Your task to perform on an android device: refresh tabs in the chrome app Image 0: 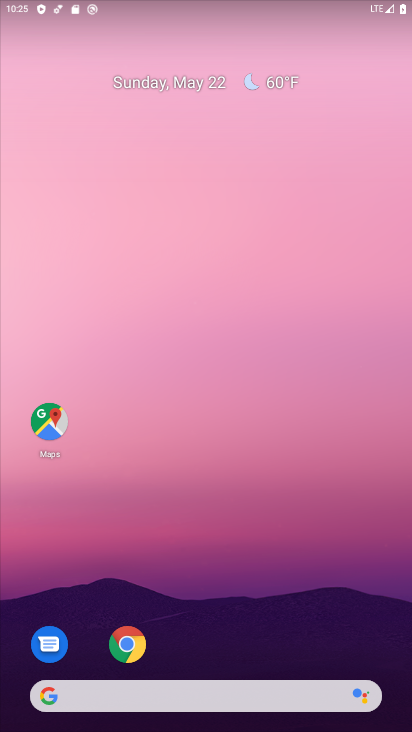
Step 0: click (131, 667)
Your task to perform on an android device: refresh tabs in the chrome app Image 1: 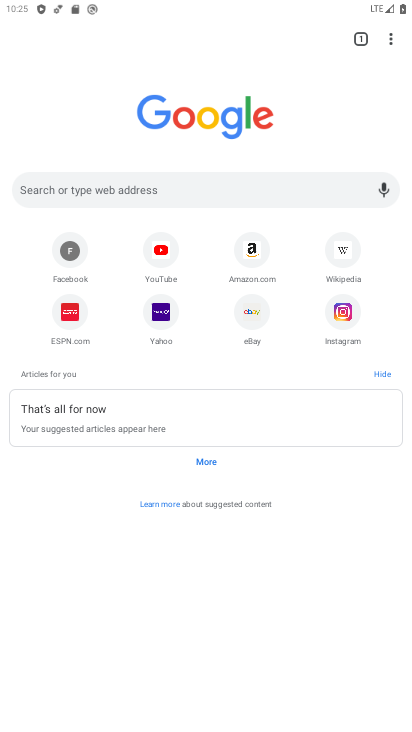
Step 1: click (394, 35)
Your task to perform on an android device: refresh tabs in the chrome app Image 2: 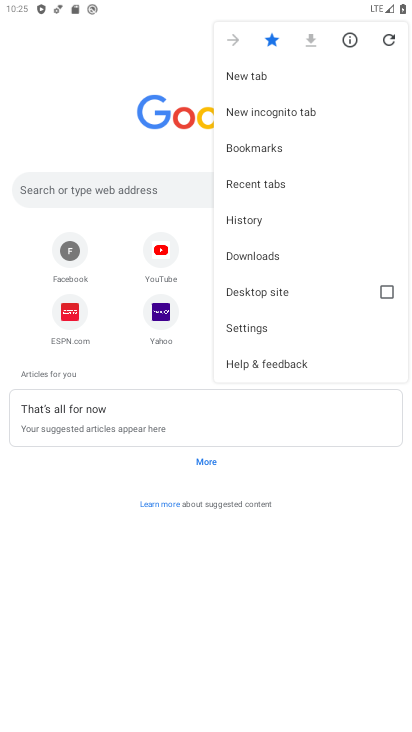
Step 2: click (394, 43)
Your task to perform on an android device: refresh tabs in the chrome app Image 3: 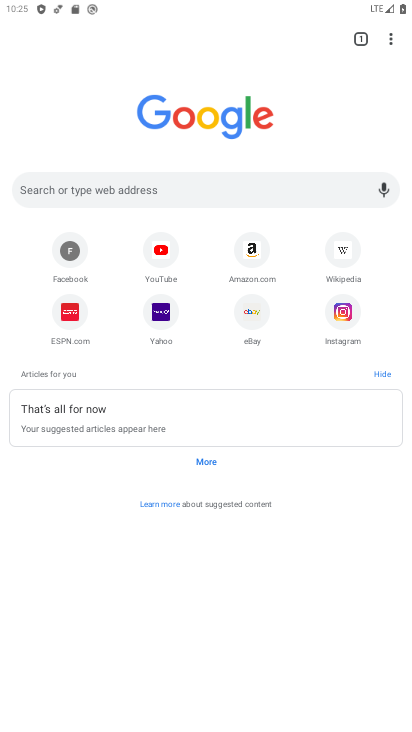
Step 3: task complete